Your task to perform on an android device: turn on improve location accuracy Image 0: 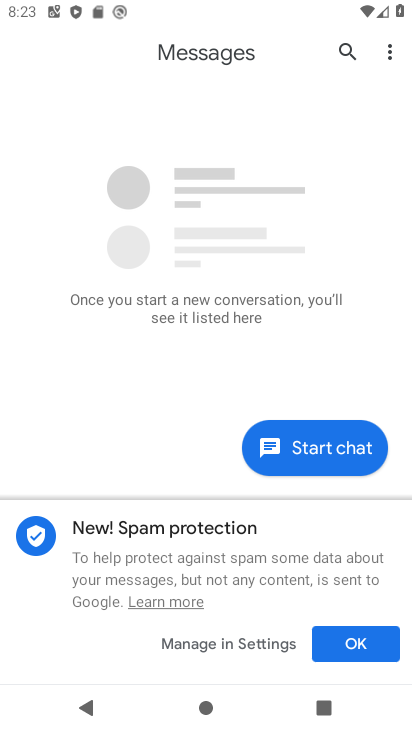
Step 0: press home button
Your task to perform on an android device: turn on improve location accuracy Image 1: 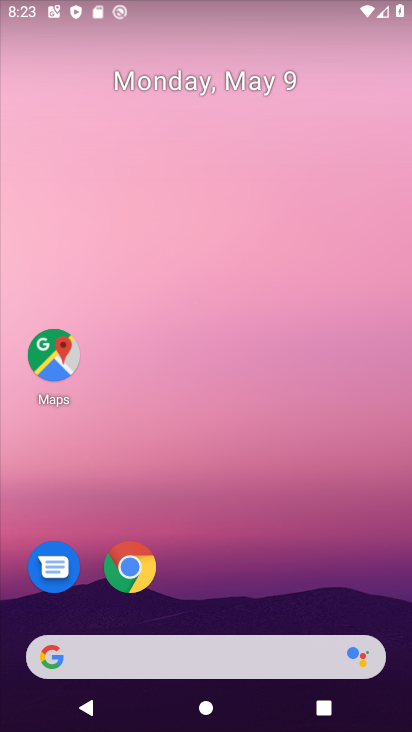
Step 1: drag from (356, 578) to (313, 199)
Your task to perform on an android device: turn on improve location accuracy Image 2: 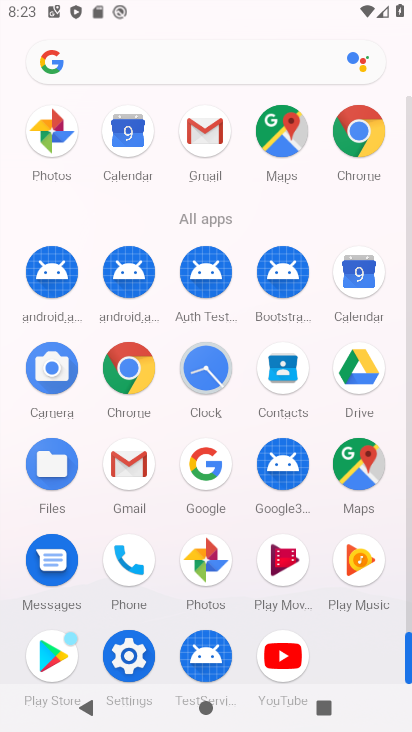
Step 2: click (134, 669)
Your task to perform on an android device: turn on improve location accuracy Image 3: 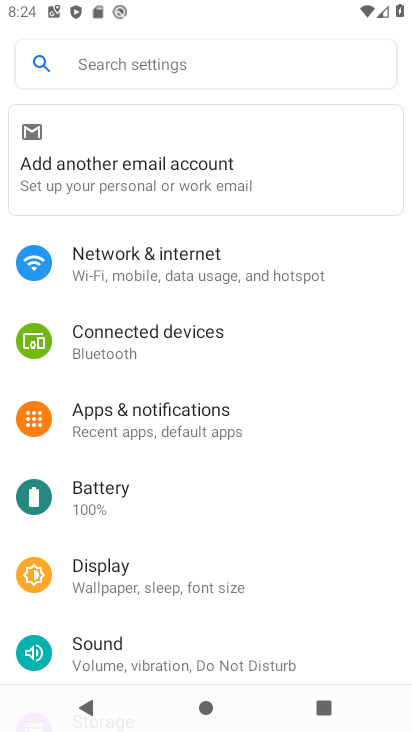
Step 3: drag from (274, 640) to (266, 213)
Your task to perform on an android device: turn on improve location accuracy Image 4: 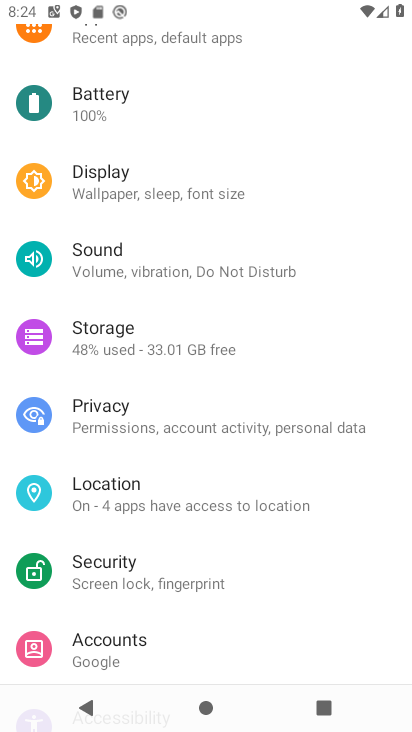
Step 4: click (195, 501)
Your task to perform on an android device: turn on improve location accuracy Image 5: 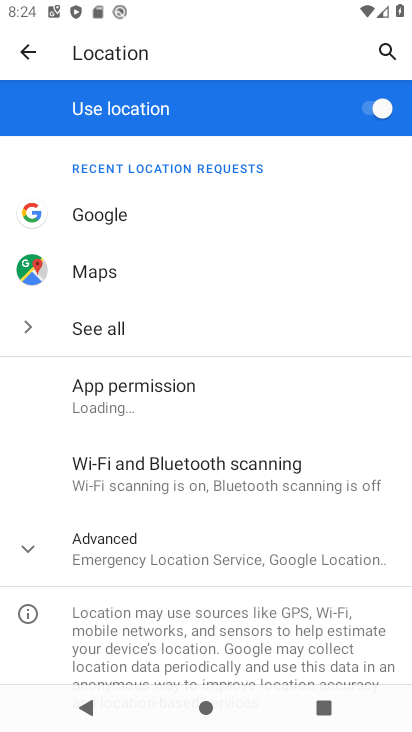
Step 5: drag from (326, 558) to (339, 256)
Your task to perform on an android device: turn on improve location accuracy Image 6: 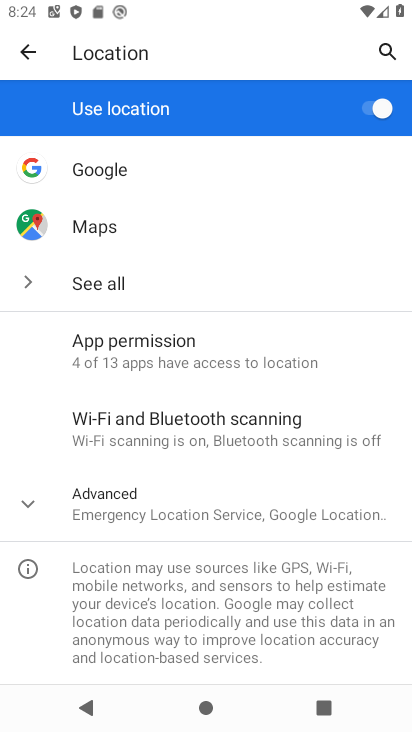
Step 6: drag from (240, 588) to (244, 268)
Your task to perform on an android device: turn on improve location accuracy Image 7: 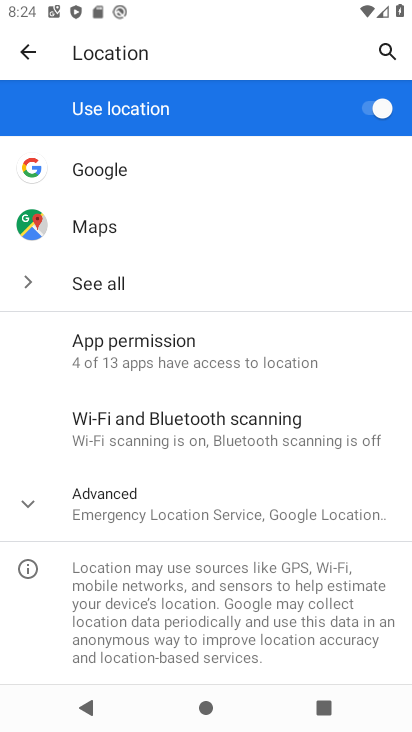
Step 7: click (210, 499)
Your task to perform on an android device: turn on improve location accuracy Image 8: 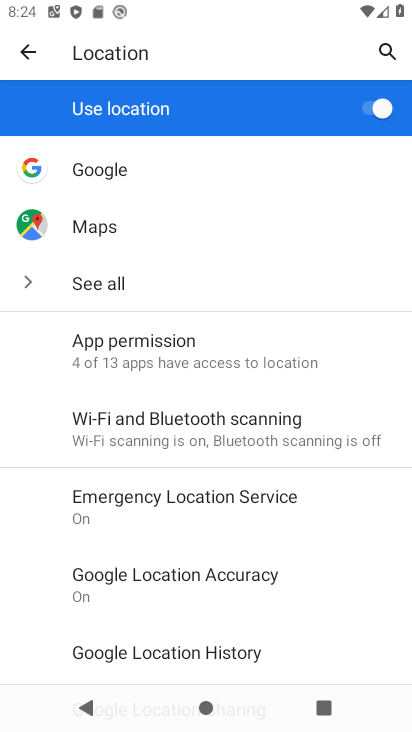
Step 8: click (230, 568)
Your task to perform on an android device: turn on improve location accuracy Image 9: 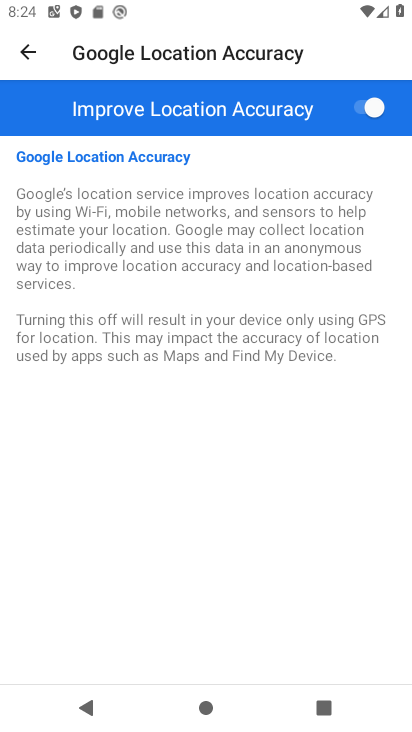
Step 9: task complete